Your task to perform on an android device: Open Youtube and go to "Your channel" Image 0: 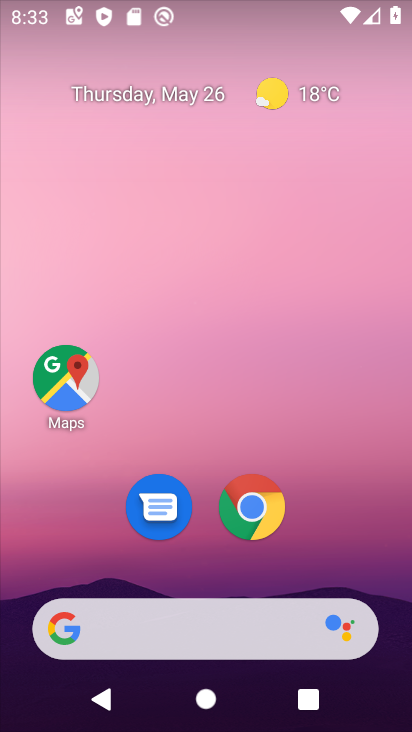
Step 0: drag from (302, 657) to (274, 74)
Your task to perform on an android device: Open Youtube and go to "Your channel" Image 1: 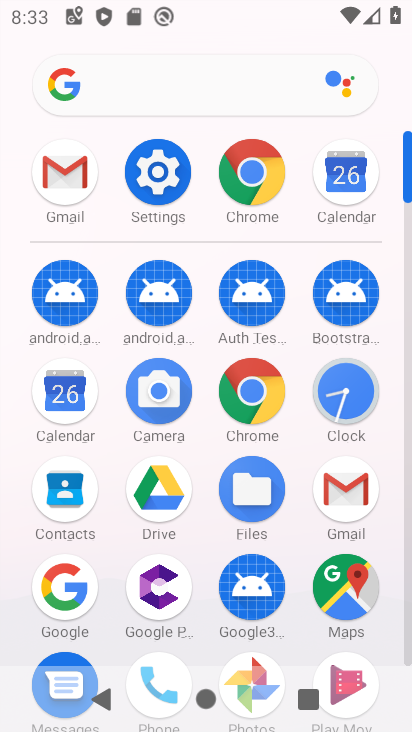
Step 1: drag from (297, 525) to (277, 343)
Your task to perform on an android device: Open Youtube and go to "Your channel" Image 2: 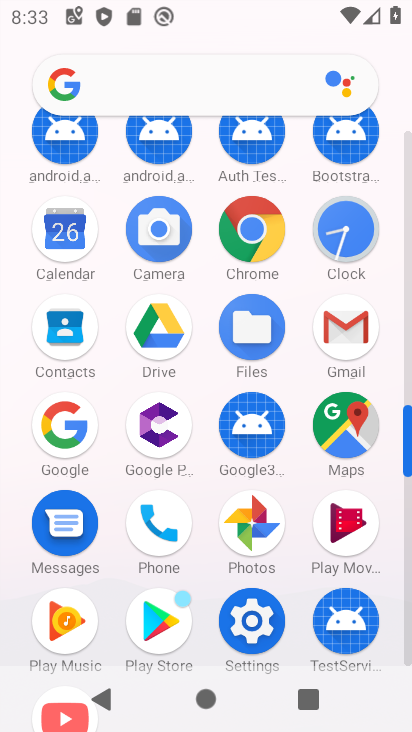
Step 2: drag from (116, 578) to (109, 450)
Your task to perform on an android device: Open Youtube and go to "Your channel" Image 3: 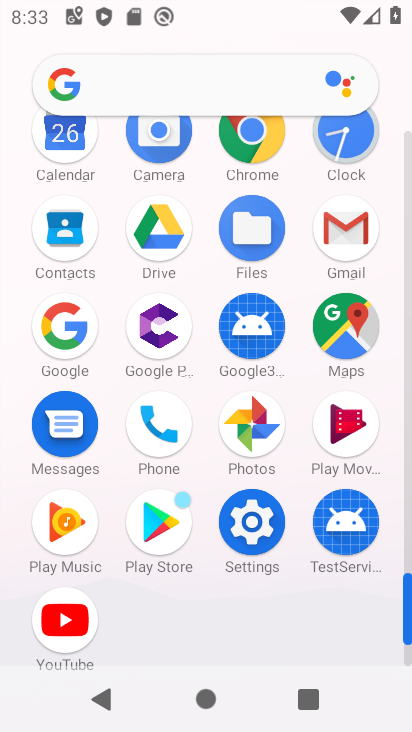
Step 3: click (65, 638)
Your task to perform on an android device: Open Youtube and go to "Your channel" Image 4: 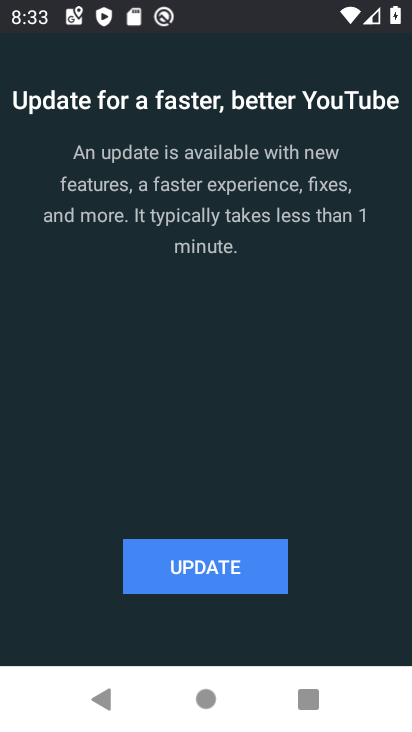
Step 4: click (257, 589)
Your task to perform on an android device: Open Youtube and go to "Your channel" Image 5: 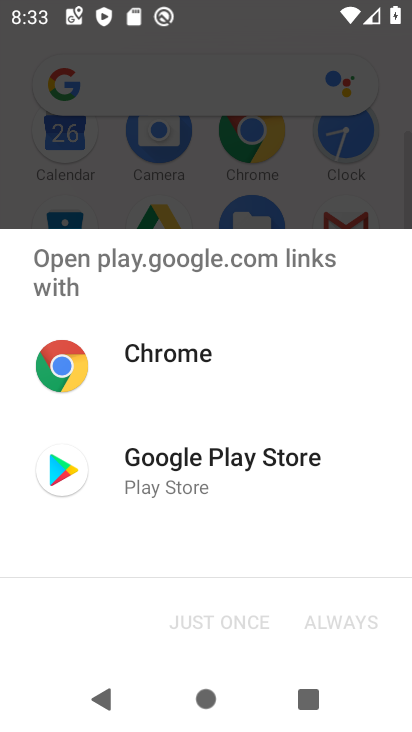
Step 5: click (156, 463)
Your task to perform on an android device: Open Youtube and go to "Your channel" Image 6: 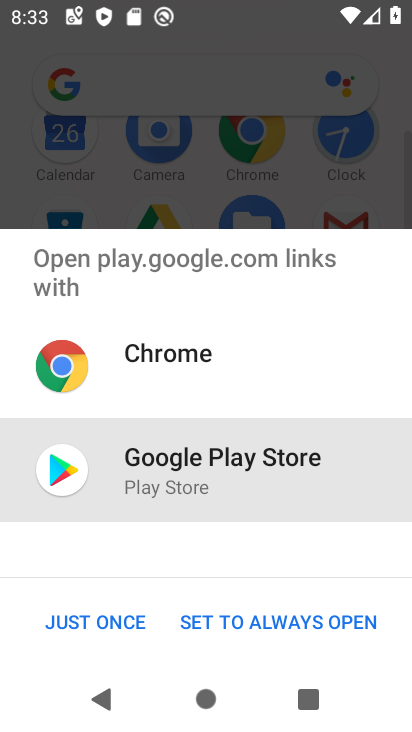
Step 6: click (97, 622)
Your task to perform on an android device: Open Youtube and go to "Your channel" Image 7: 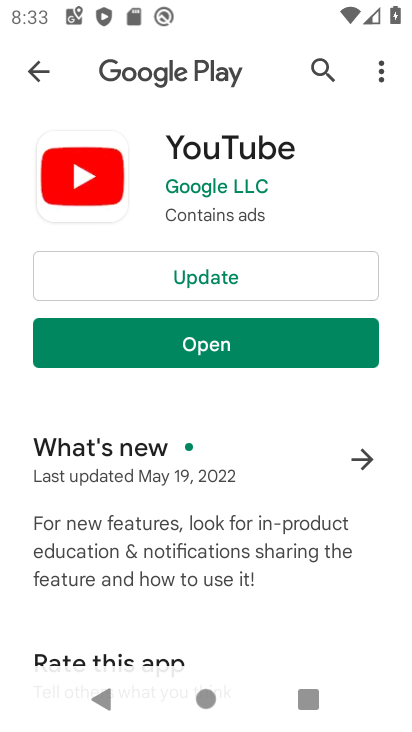
Step 7: click (242, 280)
Your task to perform on an android device: Open Youtube and go to "Your channel" Image 8: 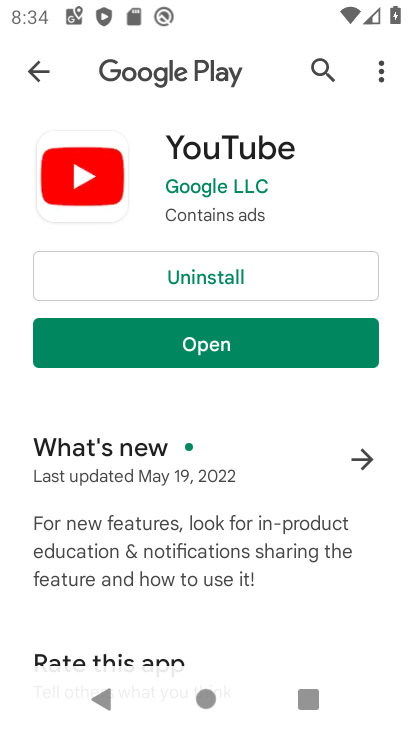
Step 8: click (222, 354)
Your task to perform on an android device: Open Youtube and go to "Your channel" Image 9: 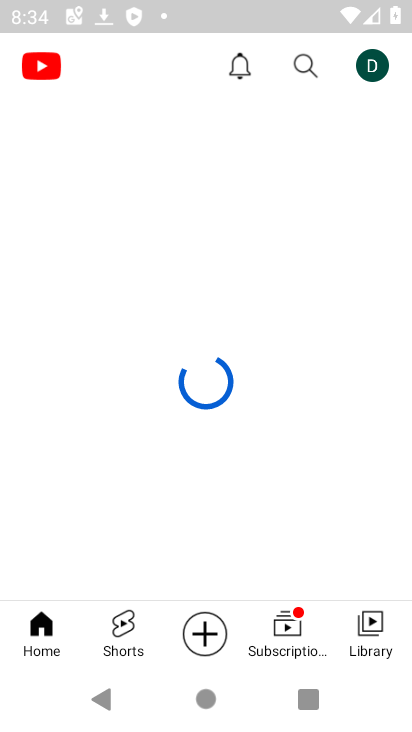
Step 9: click (359, 63)
Your task to perform on an android device: Open Youtube and go to "Your channel" Image 10: 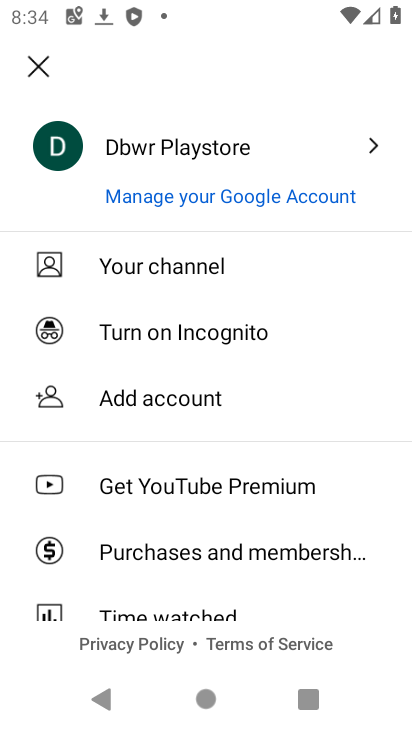
Step 10: click (177, 273)
Your task to perform on an android device: Open Youtube and go to "Your channel" Image 11: 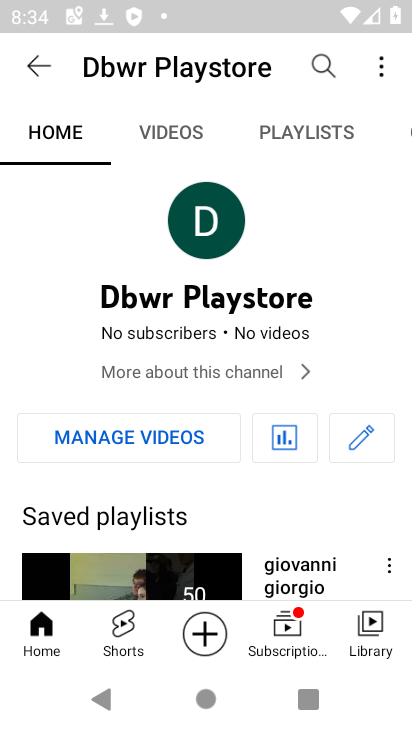
Step 11: task complete